Your task to perform on an android device: see creations saved in the google photos Image 0: 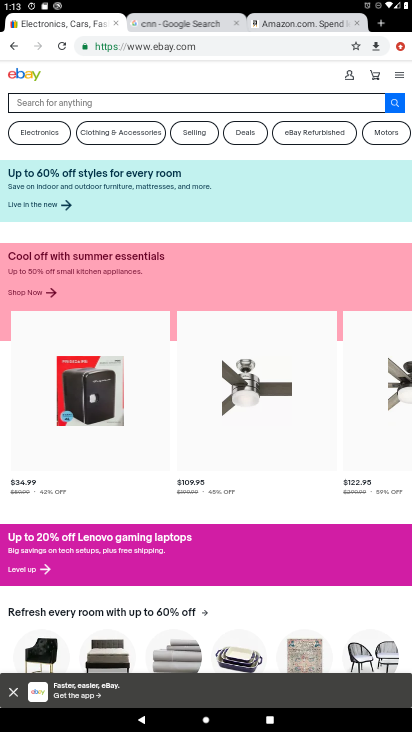
Step 0: press home button
Your task to perform on an android device: see creations saved in the google photos Image 1: 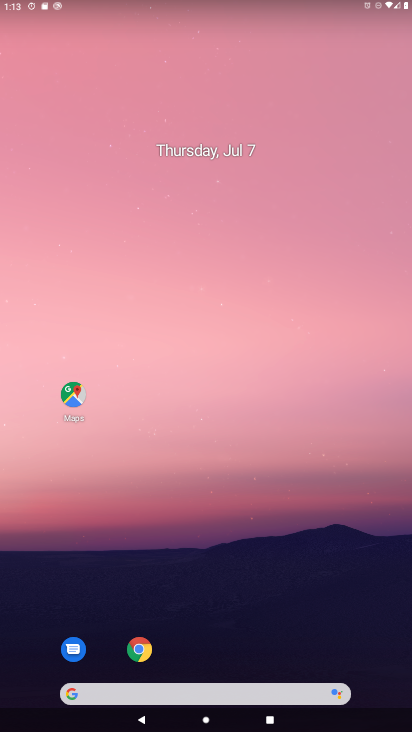
Step 1: drag from (232, 663) to (164, 238)
Your task to perform on an android device: see creations saved in the google photos Image 2: 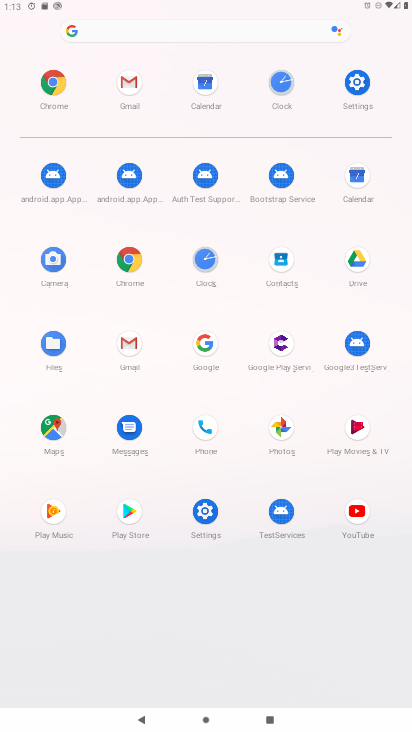
Step 2: click (278, 431)
Your task to perform on an android device: see creations saved in the google photos Image 3: 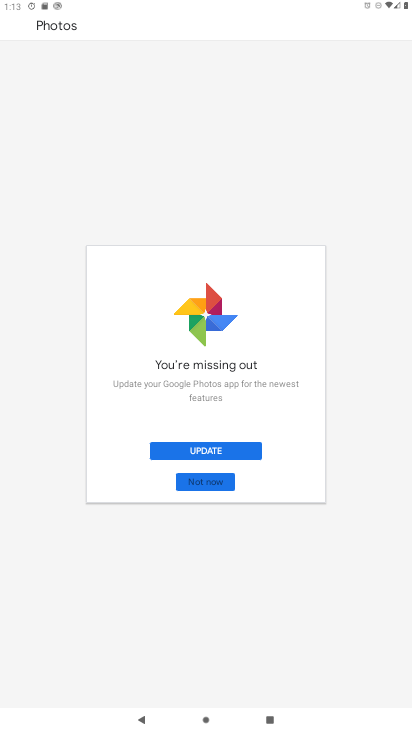
Step 3: click (223, 452)
Your task to perform on an android device: see creations saved in the google photos Image 4: 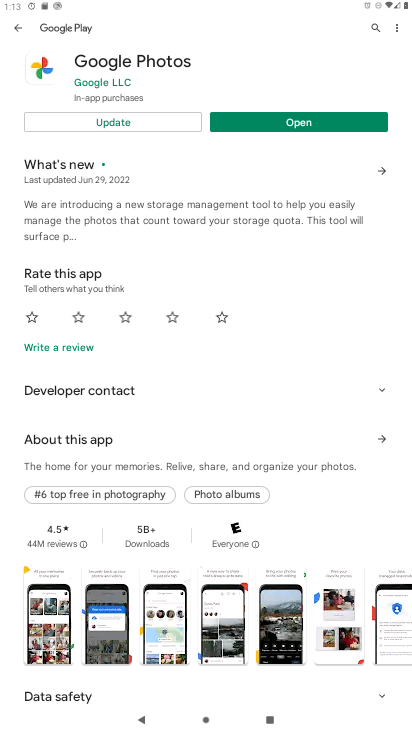
Step 4: click (152, 122)
Your task to perform on an android device: see creations saved in the google photos Image 5: 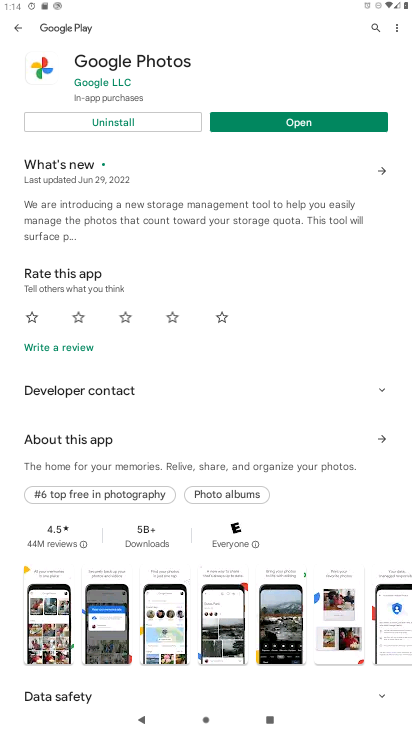
Step 5: click (226, 115)
Your task to perform on an android device: see creations saved in the google photos Image 6: 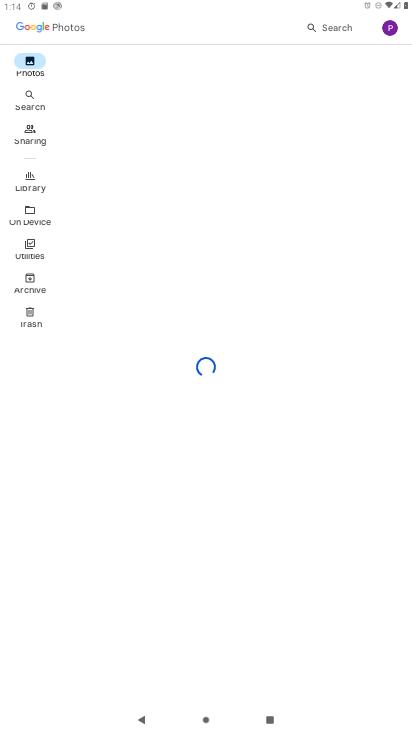
Step 6: click (20, 106)
Your task to perform on an android device: see creations saved in the google photos Image 7: 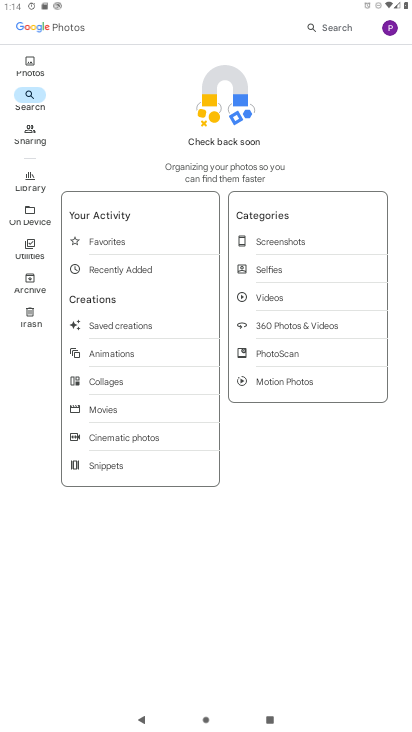
Step 7: click (145, 325)
Your task to perform on an android device: see creations saved in the google photos Image 8: 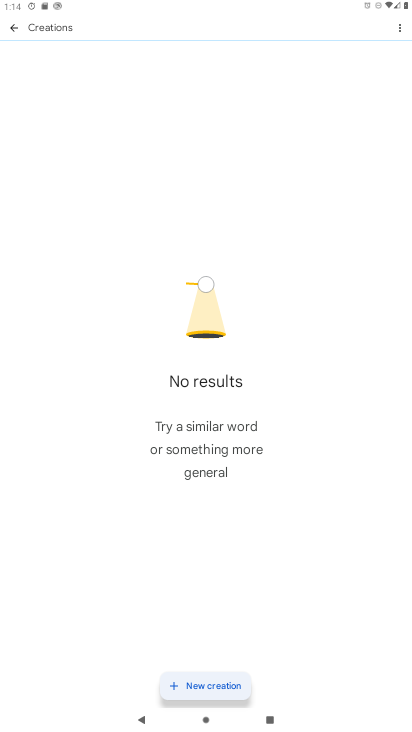
Step 8: task complete